Your task to perform on an android device: Show me recent news Image 0: 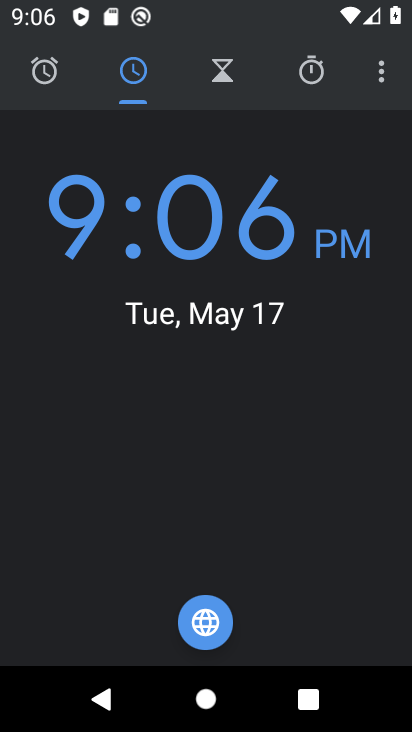
Step 0: press home button
Your task to perform on an android device: Show me recent news Image 1: 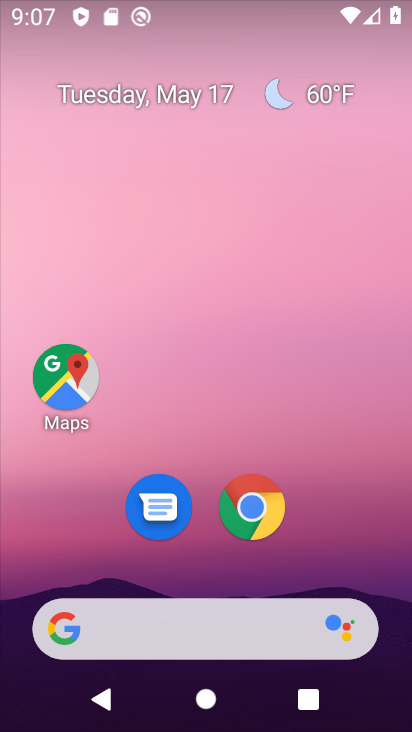
Step 1: task complete